Your task to perform on an android device: turn vacation reply on in the gmail app Image 0: 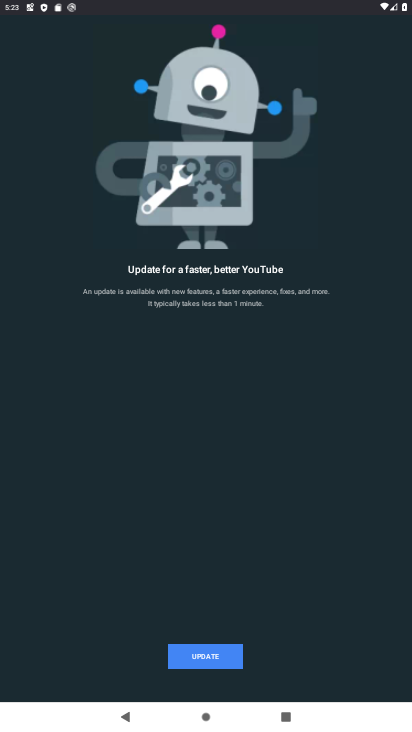
Step 0: press home button
Your task to perform on an android device: turn vacation reply on in the gmail app Image 1: 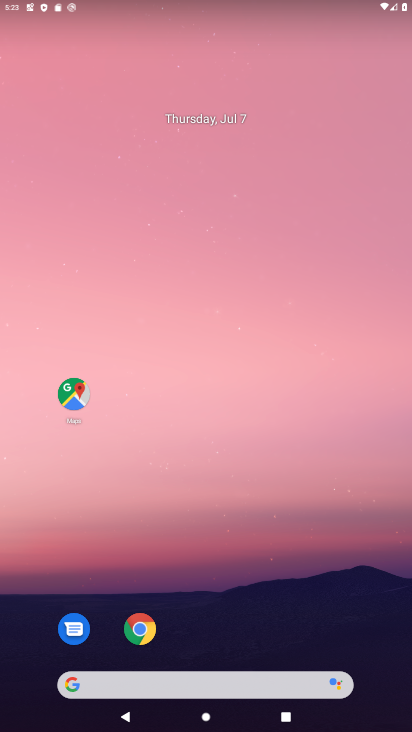
Step 1: drag from (267, 630) to (263, 430)
Your task to perform on an android device: turn vacation reply on in the gmail app Image 2: 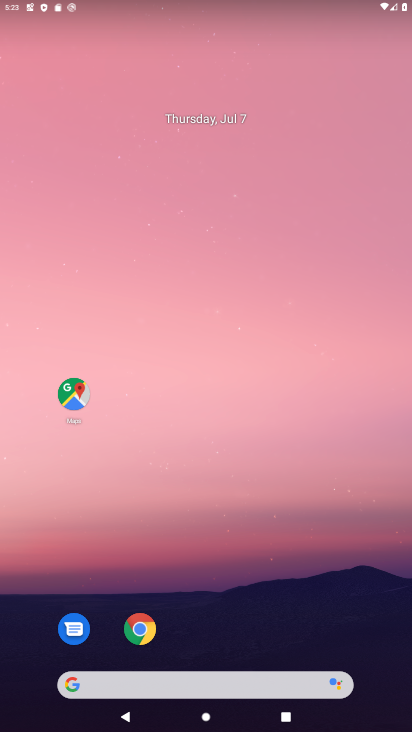
Step 2: drag from (287, 612) to (327, 1)
Your task to perform on an android device: turn vacation reply on in the gmail app Image 3: 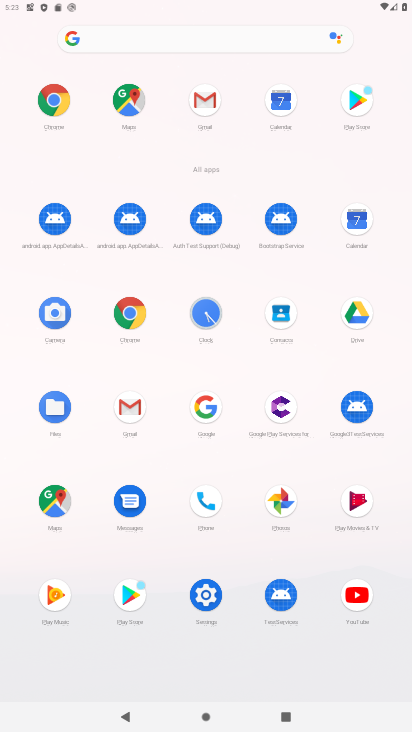
Step 3: click (201, 93)
Your task to perform on an android device: turn vacation reply on in the gmail app Image 4: 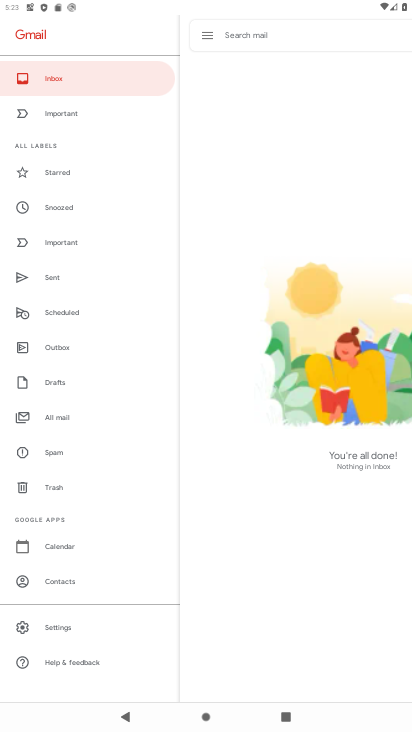
Step 4: click (48, 626)
Your task to perform on an android device: turn vacation reply on in the gmail app Image 5: 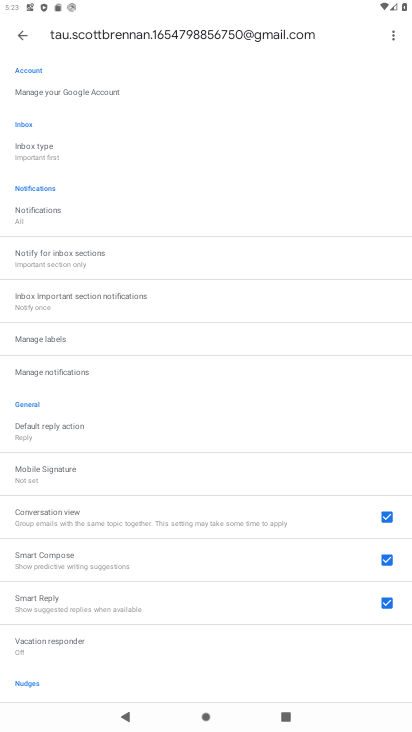
Step 5: drag from (226, 619) to (302, 164)
Your task to perform on an android device: turn vacation reply on in the gmail app Image 6: 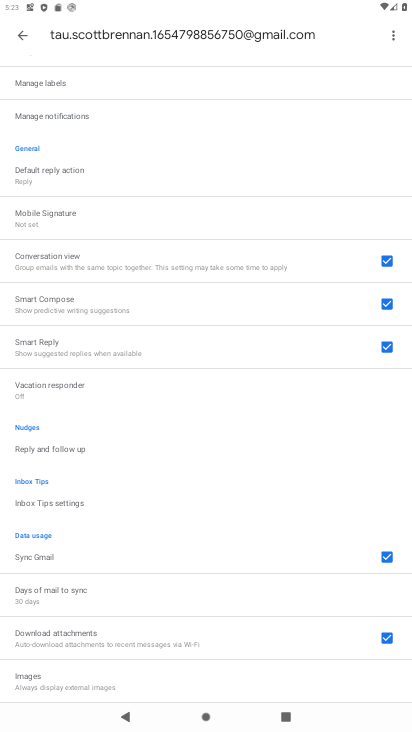
Step 6: click (36, 386)
Your task to perform on an android device: turn vacation reply on in the gmail app Image 7: 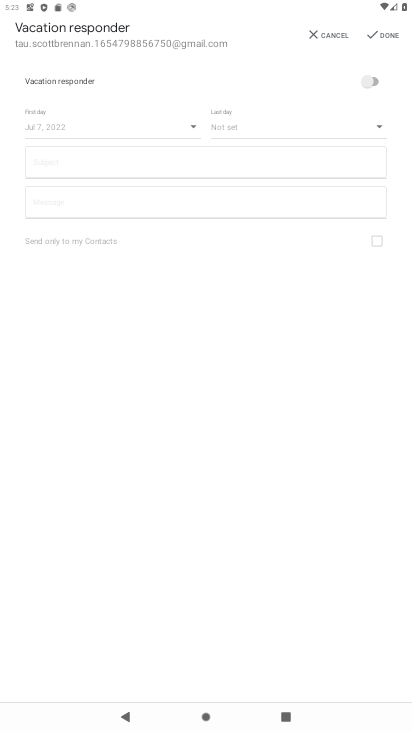
Step 7: click (370, 82)
Your task to perform on an android device: turn vacation reply on in the gmail app Image 8: 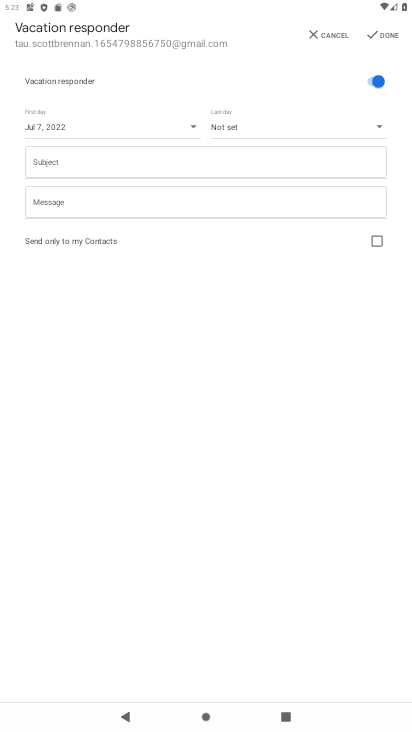
Step 8: click (377, 31)
Your task to perform on an android device: turn vacation reply on in the gmail app Image 9: 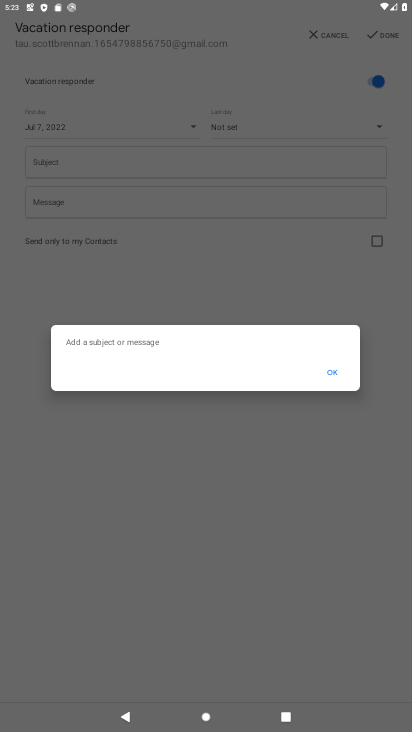
Step 9: click (337, 366)
Your task to perform on an android device: turn vacation reply on in the gmail app Image 10: 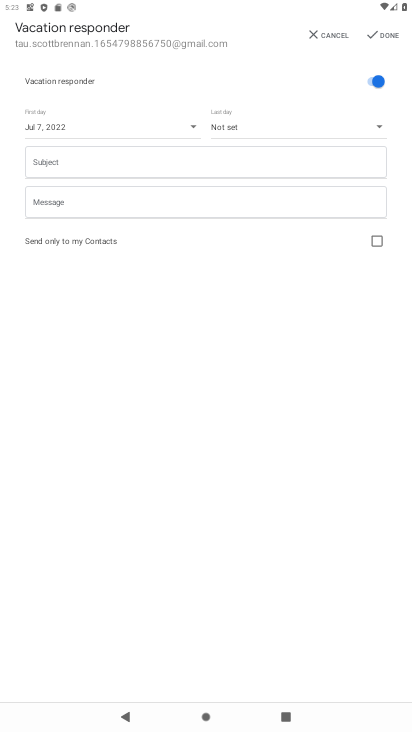
Step 10: task complete